Your task to perform on an android device: change the clock style Image 0: 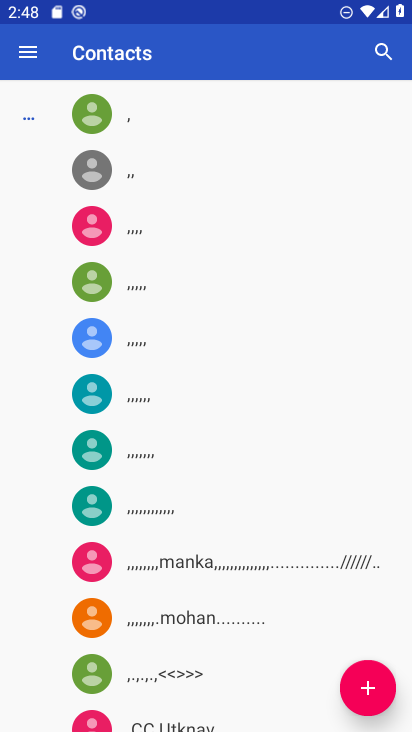
Step 0: press home button
Your task to perform on an android device: change the clock style Image 1: 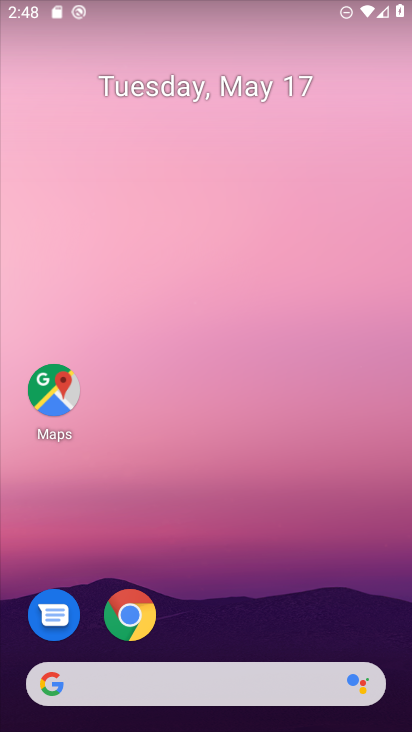
Step 1: drag from (228, 727) to (225, 147)
Your task to perform on an android device: change the clock style Image 2: 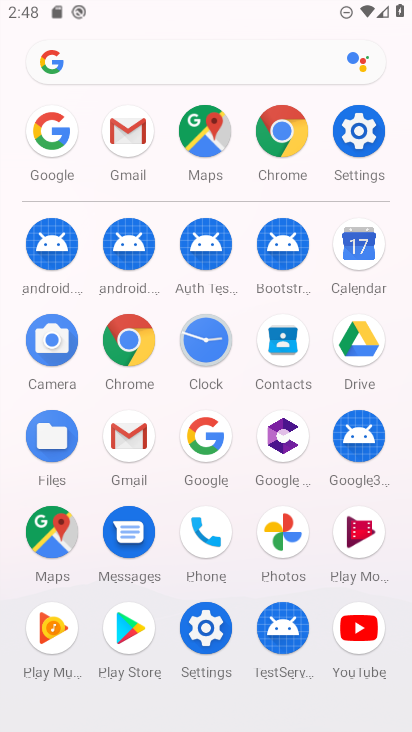
Step 2: click (199, 346)
Your task to perform on an android device: change the clock style Image 3: 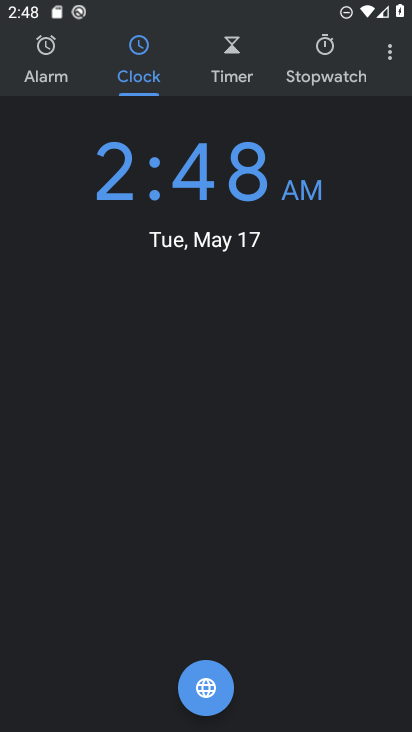
Step 3: click (389, 59)
Your task to perform on an android device: change the clock style Image 4: 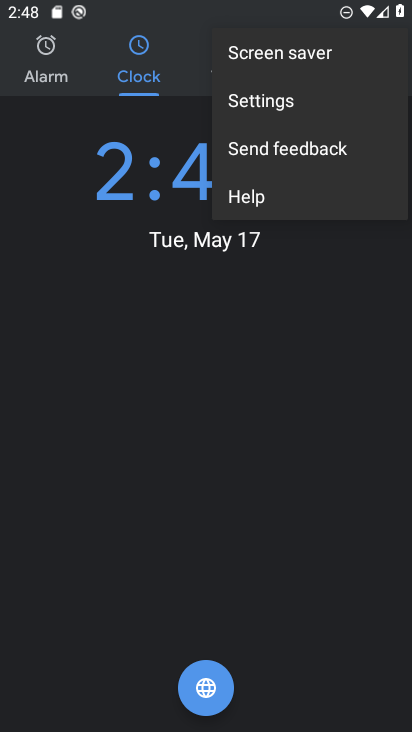
Step 4: click (248, 104)
Your task to perform on an android device: change the clock style Image 5: 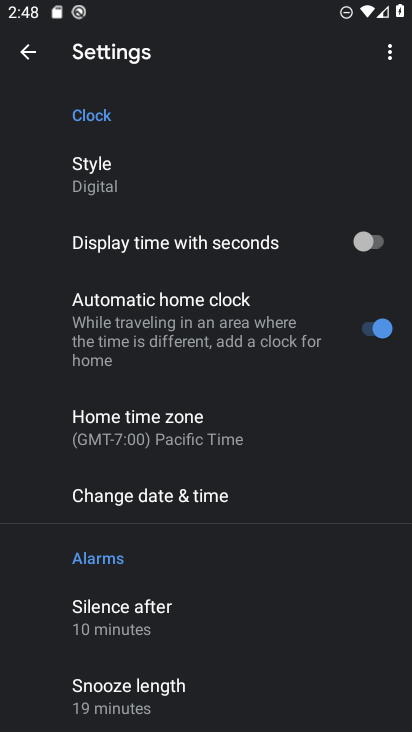
Step 5: click (93, 176)
Your task to perform on an android device: change the clock style Image 6: 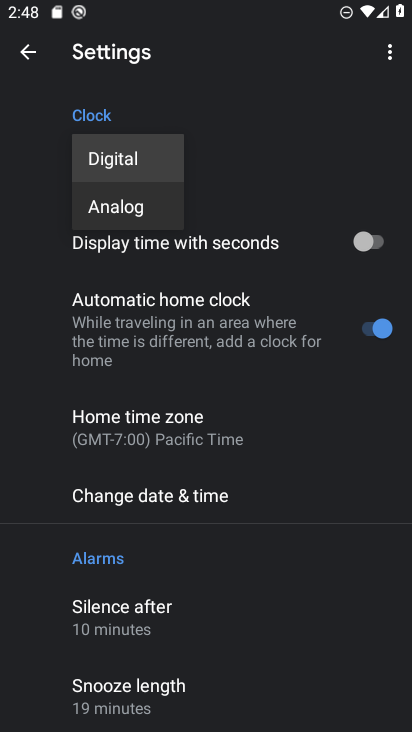
Step 6: click (125, 208)
Your task to perform on an android device: change the clock style Image 7: 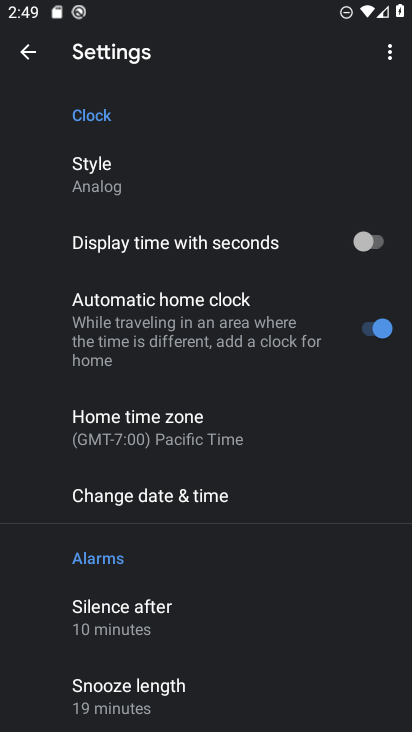
Step 7: task complete